Your task to perform on an android device: Open Maps and search for coffee Image 0: 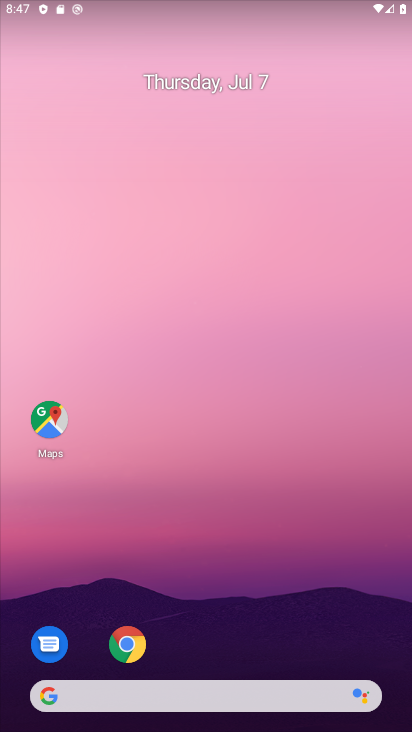
Step 0: drag from (218, 707) to (237, 111)
Your task to perform on an android device: Open Maps and search for coffee Image 1: 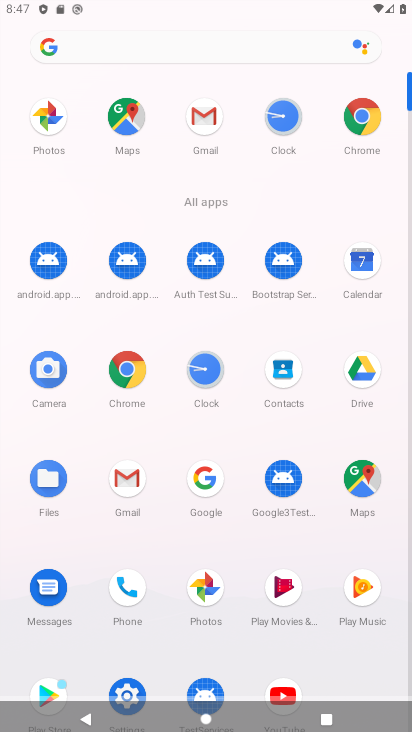
Step 1: click (366, 477)
Your task to perform on an android device: Open Maps and search for coffee Image 2: 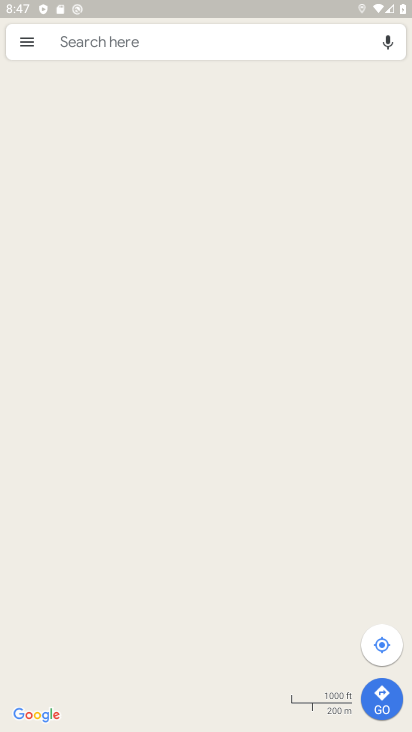
Step 2: click (167, 40)
Your task to perform on an android device: Open Maps and search for coffee Image 3: 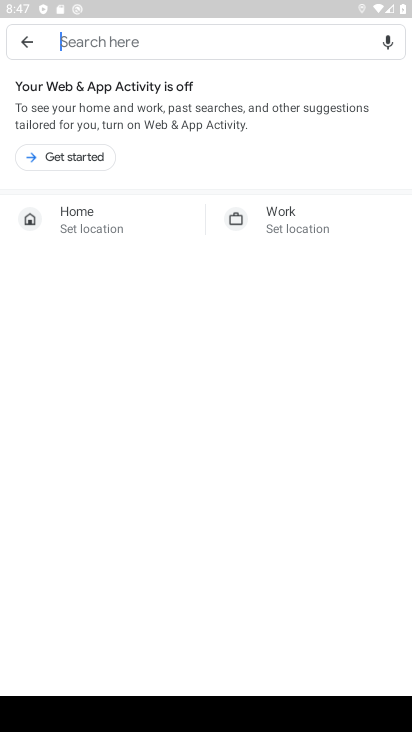
Step 3: type "Coffee"
Your task to perform on an android device: Open Maps and search for coffee Image 4: 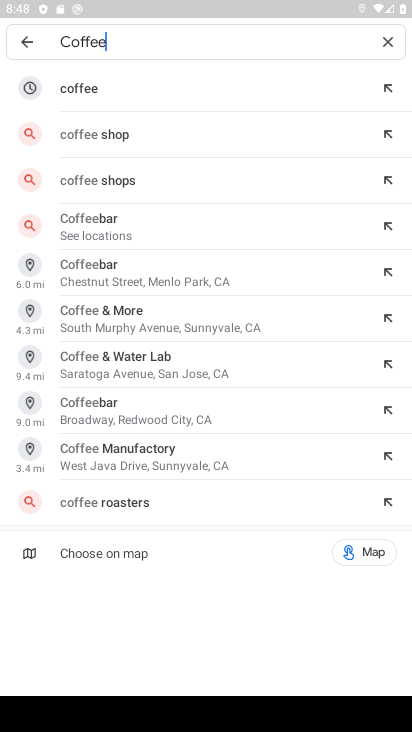
Step 4: click (111, 111)
Your task to perform on an android device: Open Maps and search for coffee Image 5: 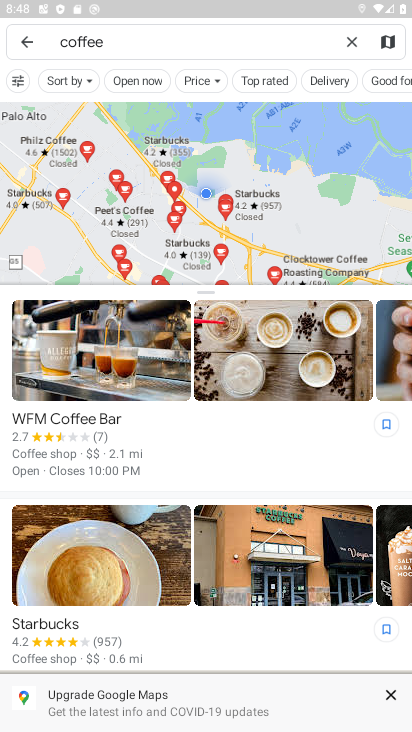
Step 5: task complete